Your task to perform on an android device: open wifi settings Image 0: 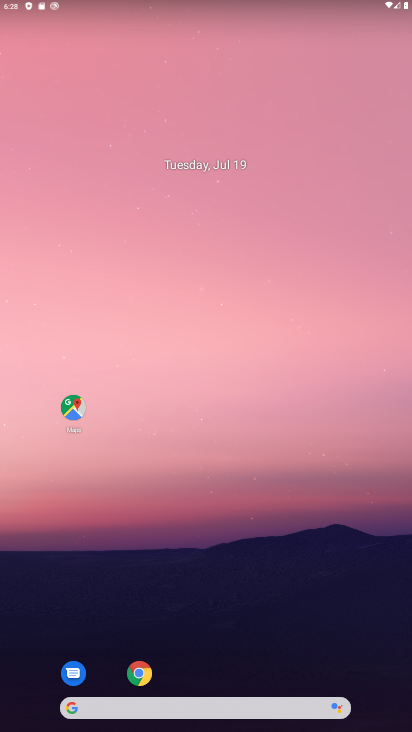
Step 0: drag from (318, 640) to (239, 61)
Your task to perform on an android device: open wifi settings Image 1: 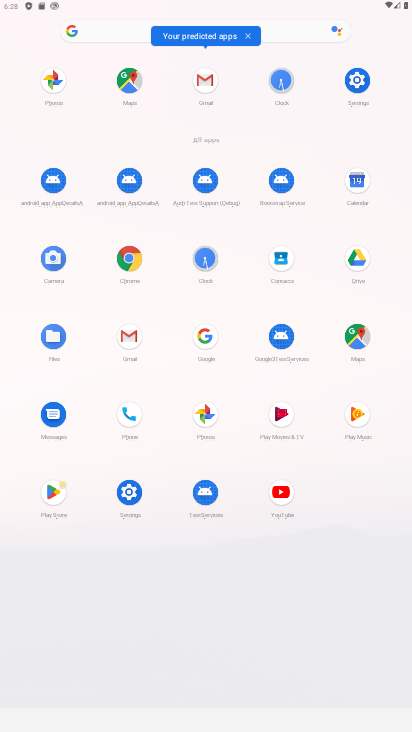
Step 1: click (126, 493)
Your task to perform on an android device: open wifi settings Image 2: 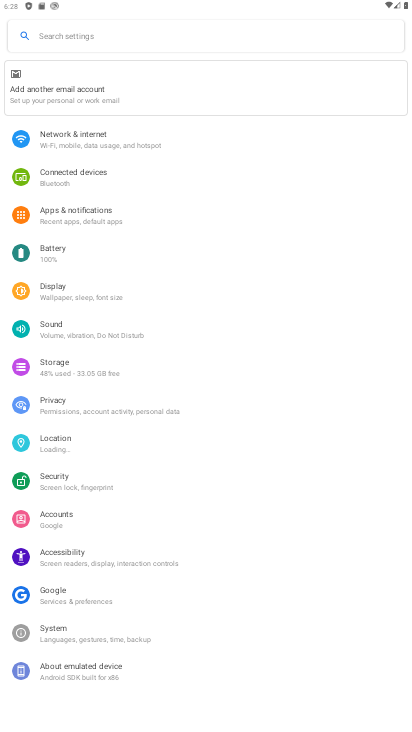
Step 2: click (94, 131)
Your task to perform on an android device: open wifi settings Image 3: 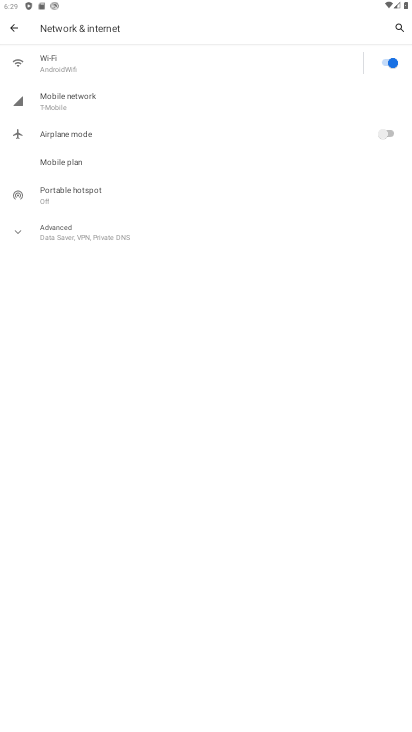
Step 3: click (65, 62)
Your task to perform on an android device: open wifi settings Image 4: 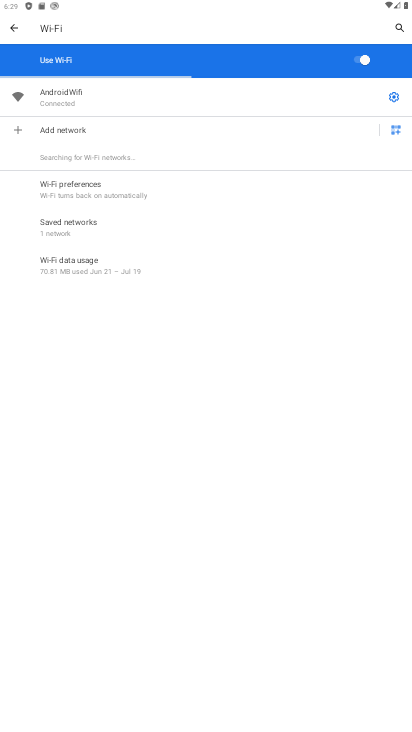
Step 4: task complete